Your task to perform on an android device: Search for sushi restaurants on Maps Image 0: 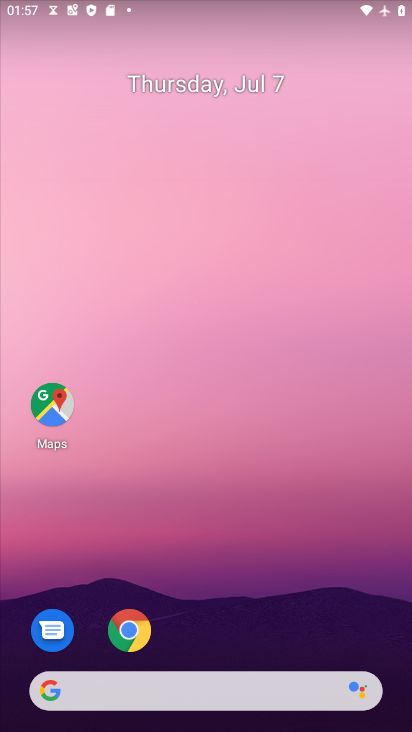
Step 0: click (53, 409)
Your task to perform on an android device: Search for sushi restaurants on Maps Image 1: 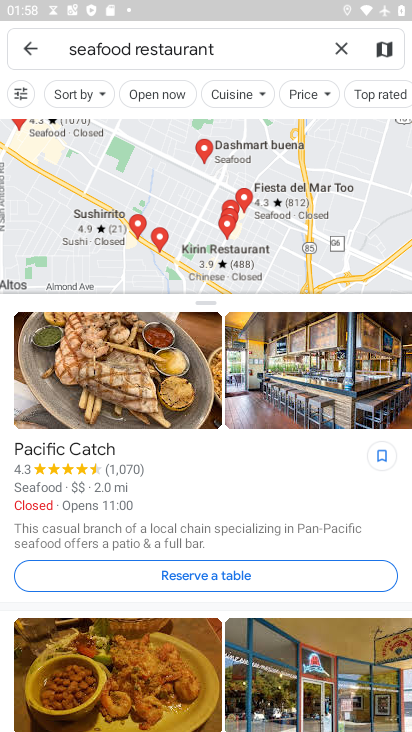
Step 1: click (242, 55)
Your task to perform on an android device: Search for sushi restaurants on Maps Image 2: 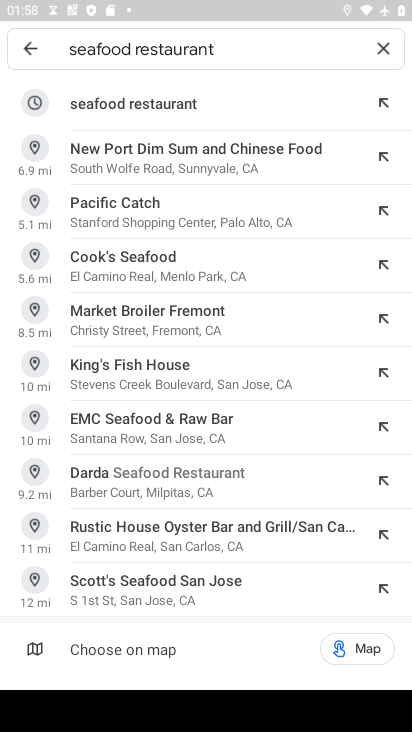
Step 2: click (392, 46)
Your task to perform on an android device: Search for sushi restaurants on Maps Image 3: 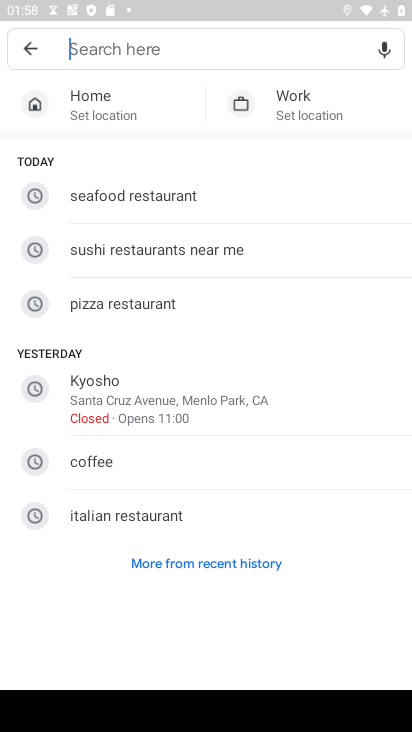
Step 3: click (190, 256)
Your task to perform on an android device: Search for sushi restaurants on Maps Image 4: 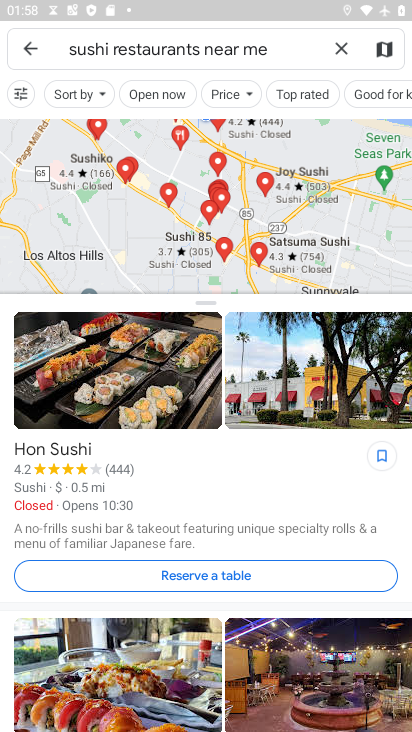
Step 4: task complete